Your task to perform on an android device: Show me the alarms in the clock app Image 0: 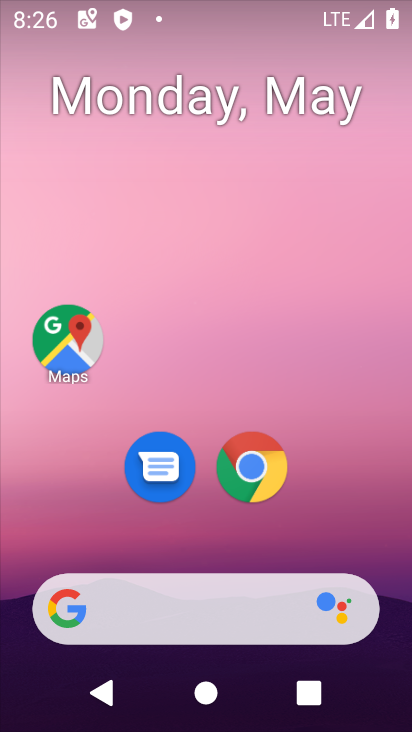
Step 0: drag from (282, 362) to (190, 65)
Your task to perform on an android device: Show me the alarms in the clock app Image 1: 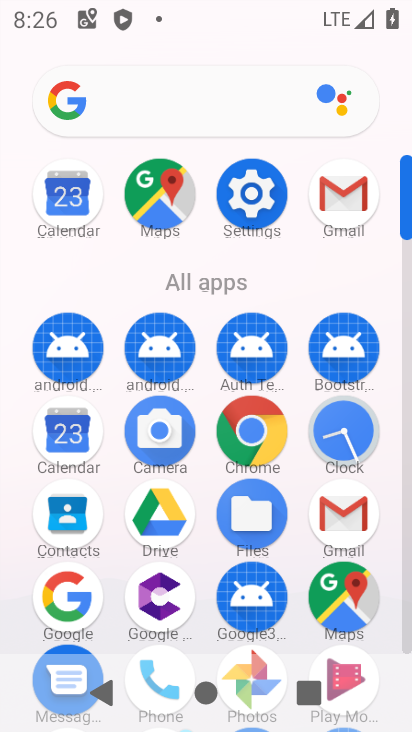
Step 1: click (351, 427)
Your task to perform on an android device: Show me the alarms in the clock app Image 2: 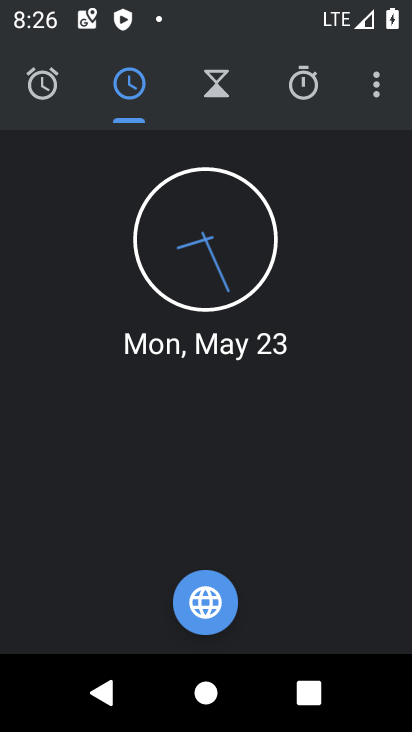
Step 2: click (28, 84)
Your task to perform on an android device: Show me the alarms in the clock app Image 3: 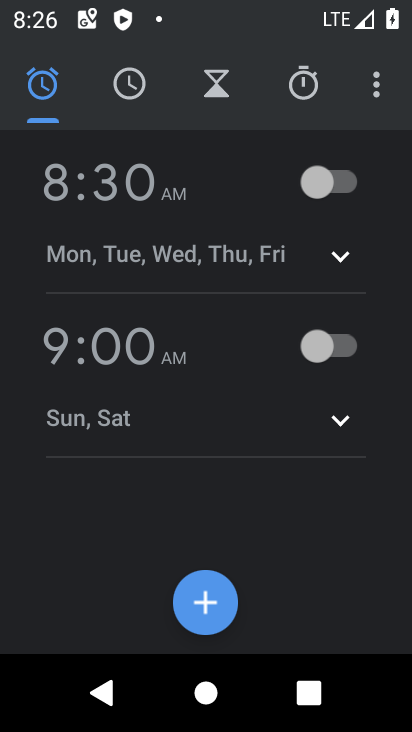
Step 3: task complete